Your task to perform on an android device: Open Google Chrome and open the bookmarks view Image 0: 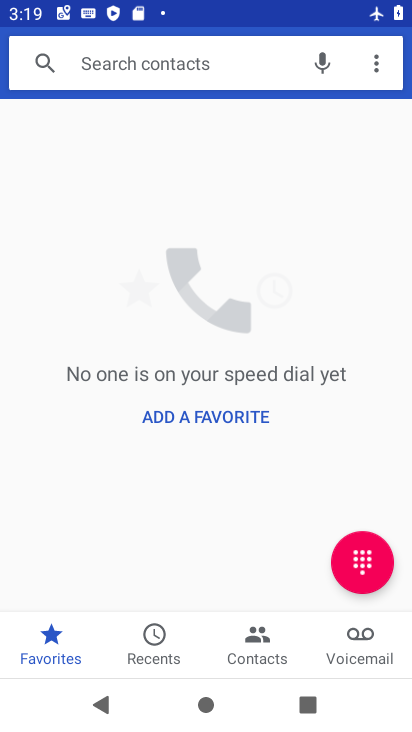
Step 0: press home button
Your task to perform on an android device: Open Google Chrome and open the bookmarks view Image 1: 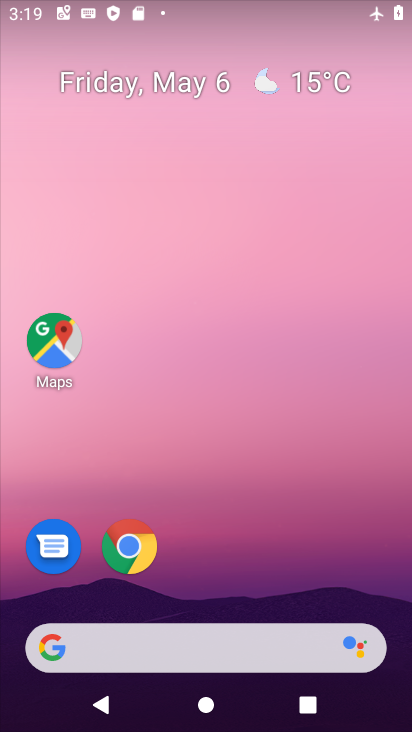
Step 1: drag from (349, 588) to (350, 38)
Your task to perform on an android device: Open Google Chrome and open the bookmarks view Image 2: 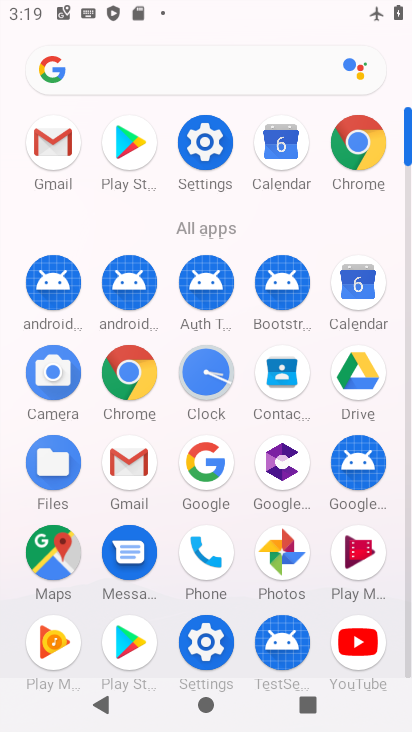
Step 2: click (356, 151)
Your task to perform on an android device: Open Google Chrome and open the bookmarks view Image 3: 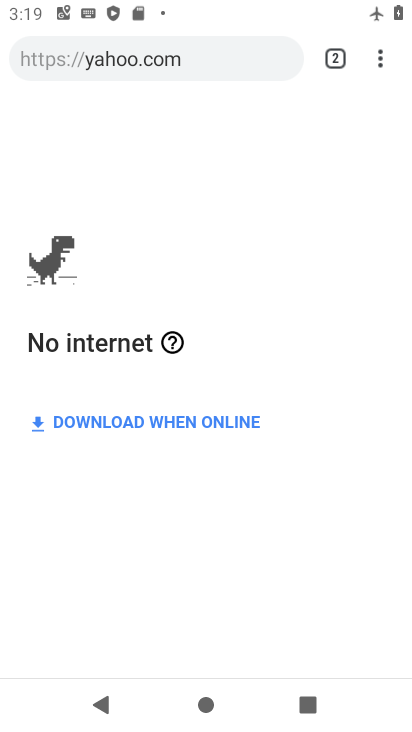
Step 3: task complete